Your task to perform on an android device: Open Android settings Image 0: 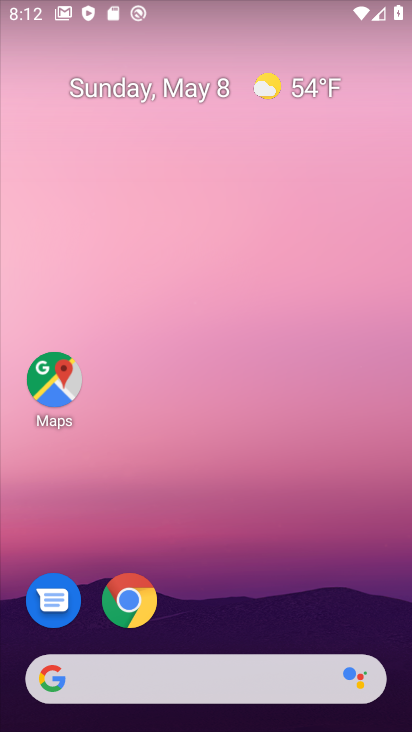
Step 0: drag from (232, 635) to (310, 1)
Your task to perform on an android device: Open Android settings Image 1: 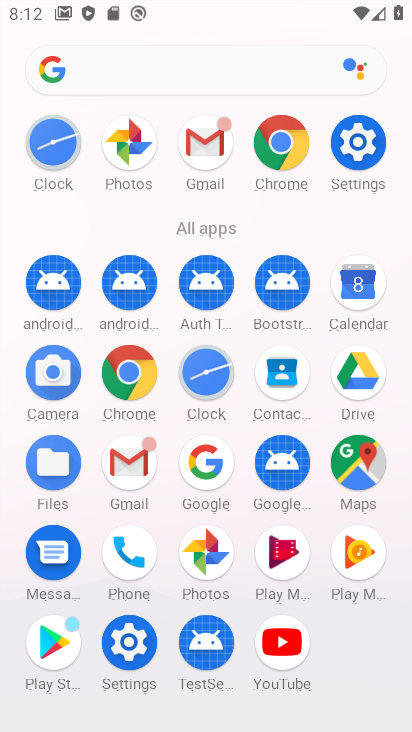
Step 1: click (357, 187)
Your task to perform on an android device: Open Android settings Image 2: 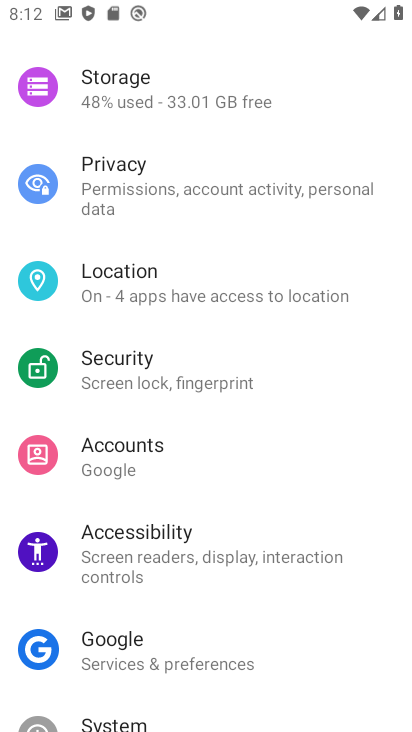
Step 2: drag from (81, 602) to (179, 45)
Your task to perform on an android device: Open Android settings Image 3: 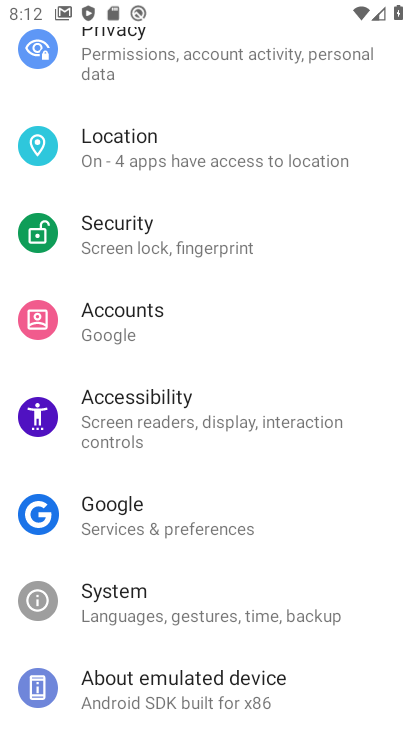
Step 3: drag from (77, 701) to (131, 167)
Your task to perform on an android device: Open Android settings Image 4: 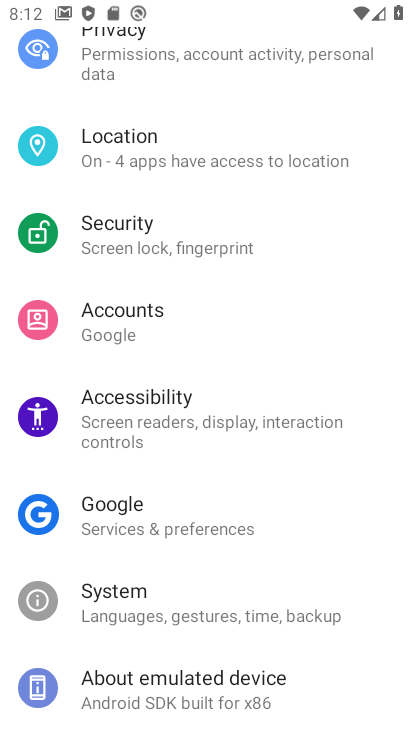
Step 4: click (112, 681)
Your task to perform on an android device: Open Android settings Image 5: 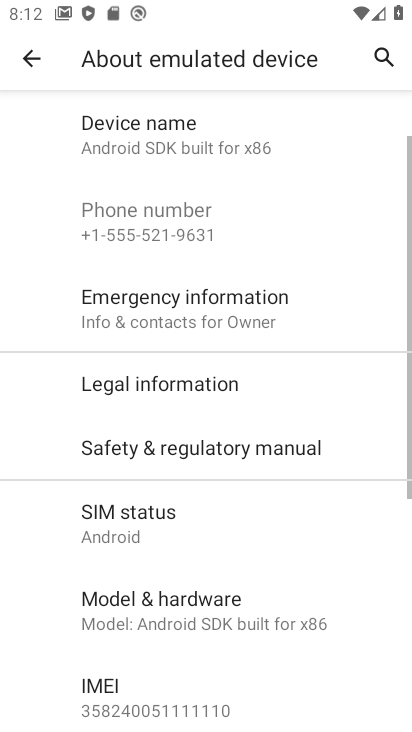
Step 5: task complete